Your task to perform on an android device: Open Chrome and go to settings Image 0: 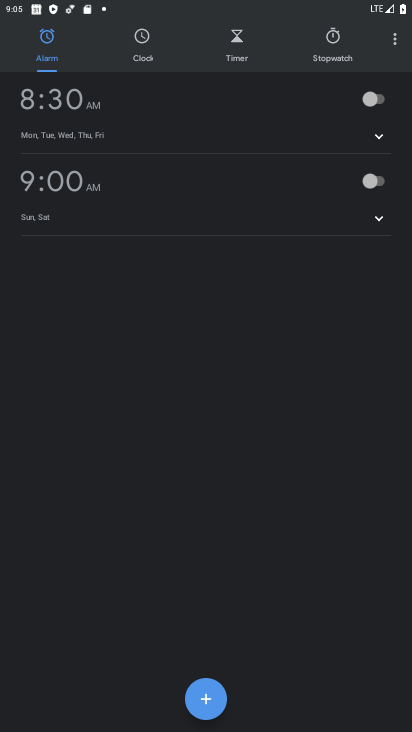
Step 0: press home button
Your task to perform on an android device: Open Chrome and go to settings Image 1: 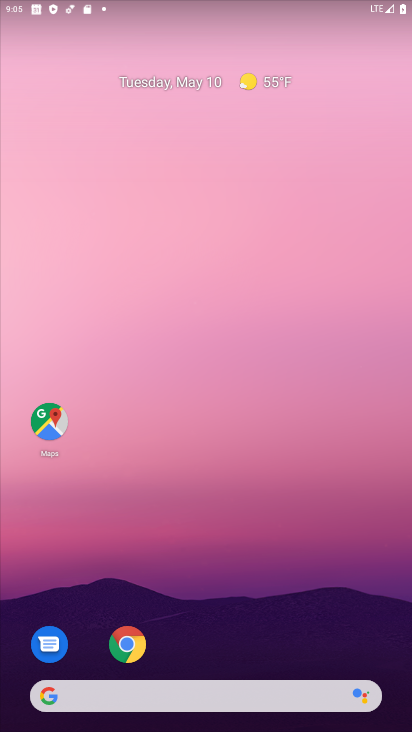
Step 1: click (128, 643)
Your task to perform on an android device: Open Chrome and go to settings Image 2: 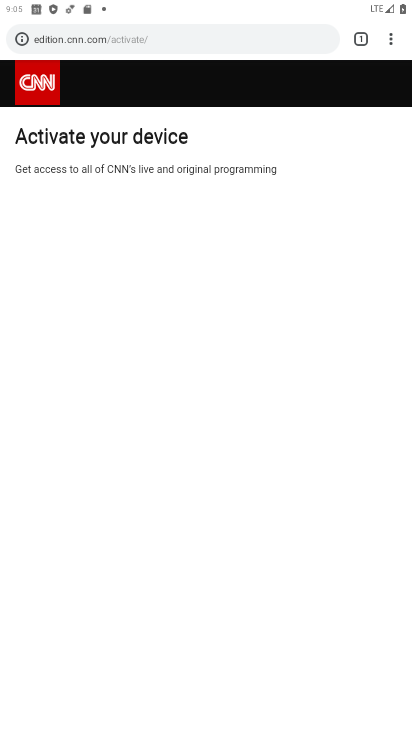
Step 2: click (395, 38)
Your task to perform on an android device: Open Chrome and go to settings Image 3: 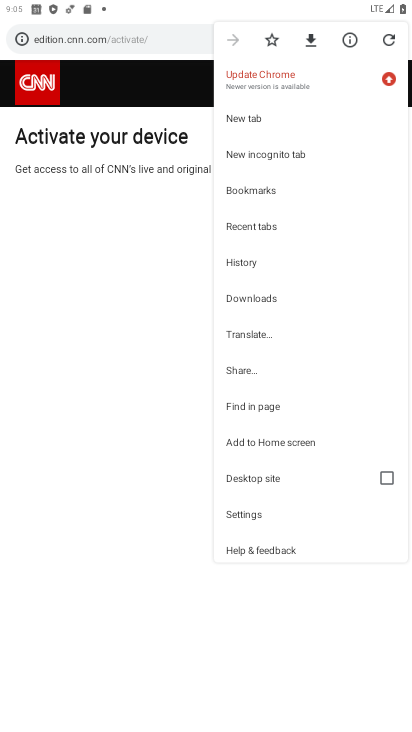
Step 3: click (252, 516)
Your task to perform on an android device: Open Chrome and go to settings Image 4: 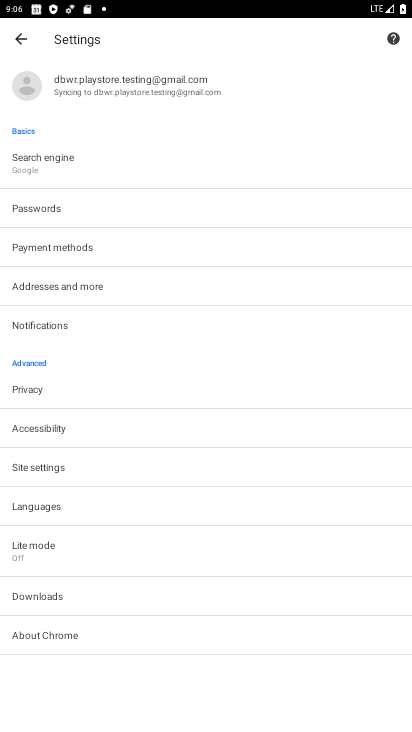
Step 4: task complete